Your task to perform on an android device: delete the emails in spam in the gmail app Image 0: 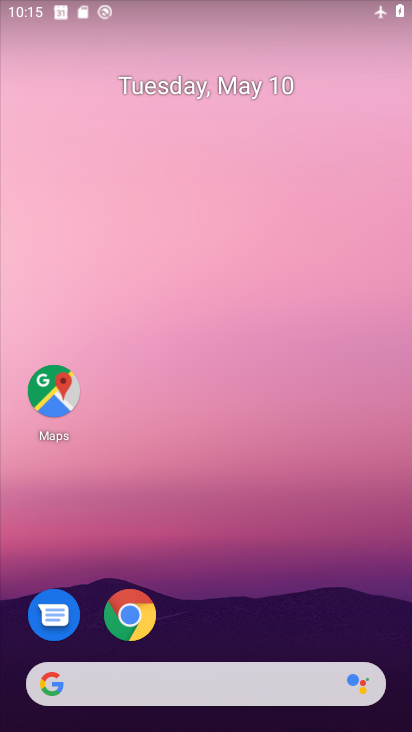
Step 0: drag from (207, 625) to (207, 261)
Your task to perform on an android device: delete the emails in spam in the gmail app Image 1: 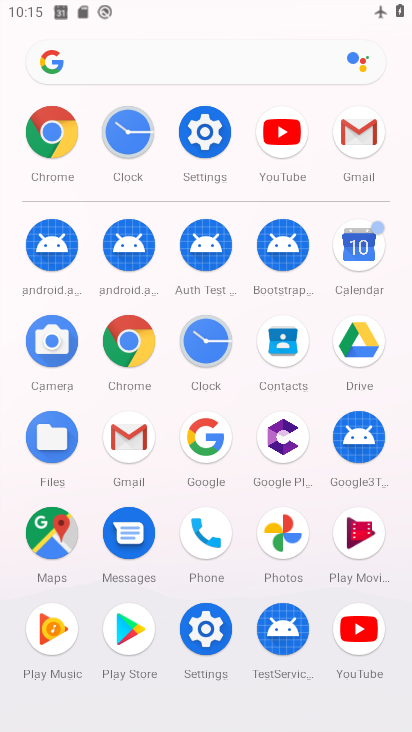
Step 1: click (135, 423)
Your task to perform on an android device: delete the emails in spam in the gmail app Image 2: 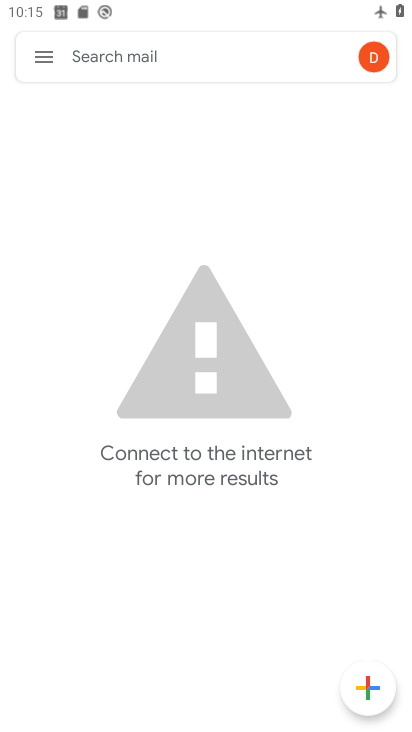
Step 2: drag from (183, 606) to (228, 330)
Your task to perform on an android device: delete the emails in spam in the gmail app Image 3: 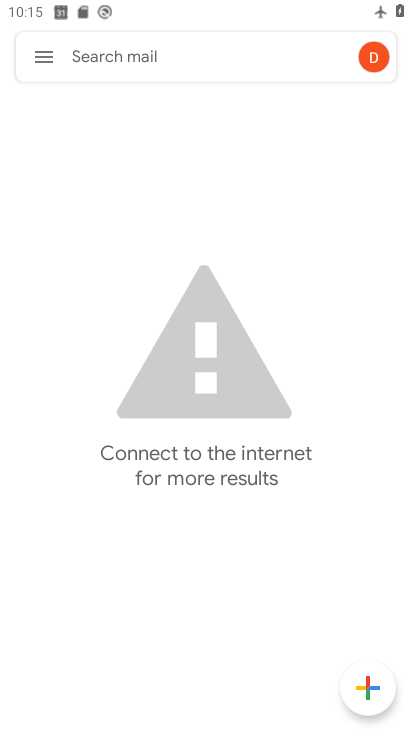
Step 3: click (50, 33)
Your task to perform on an android device: delete the emails in spam in the gmail app Image 4: 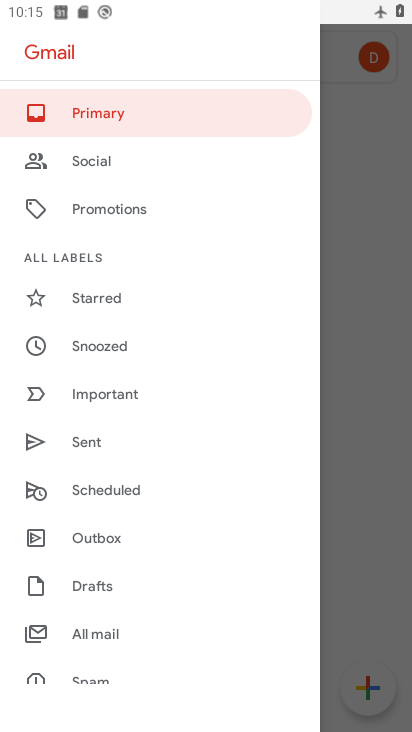
Step 4: click (86, 676)
Your task to perform on an android device: delete the emails in spam in the gmail app Image 5: 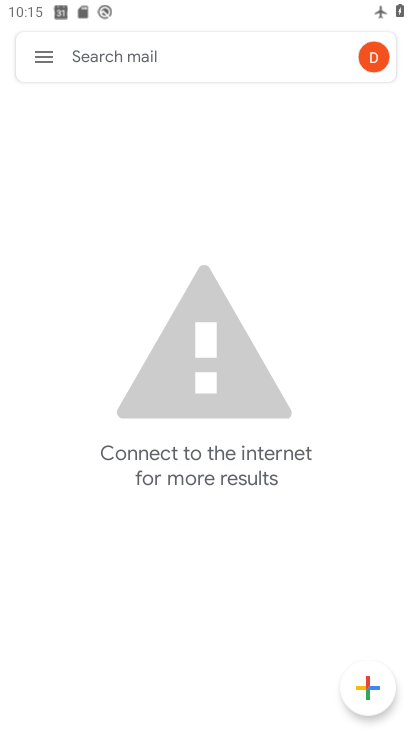
Step 5: task complete